Your task to perform on an android device: add a label to a message in the gmail app Image 0: 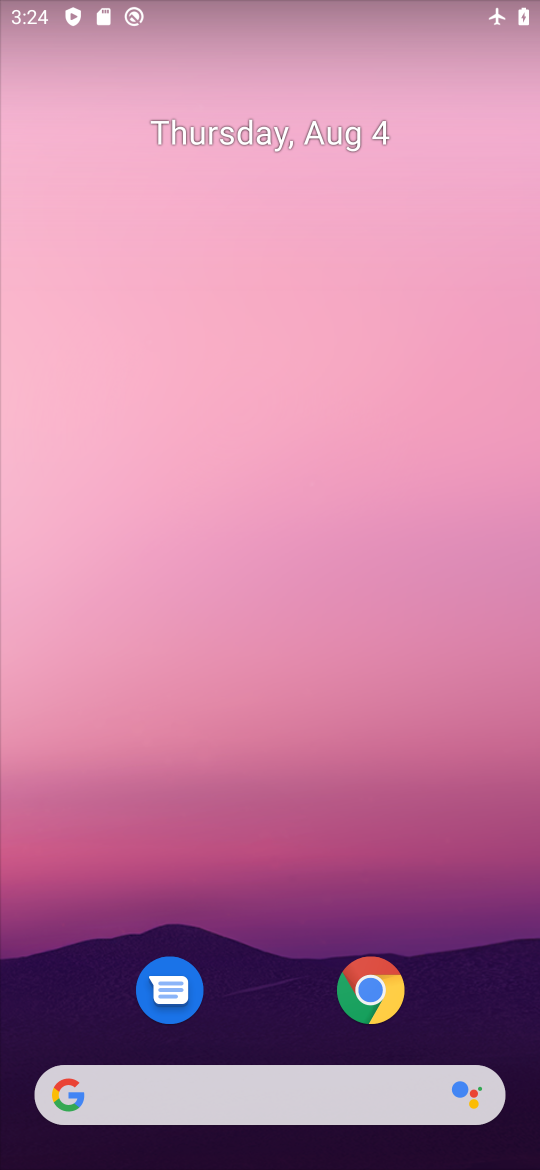
Step 0: drag from (314, 1044) to (313, 200)
Your task to perform on an android device: add a label to a message in the gmail app Image 1: 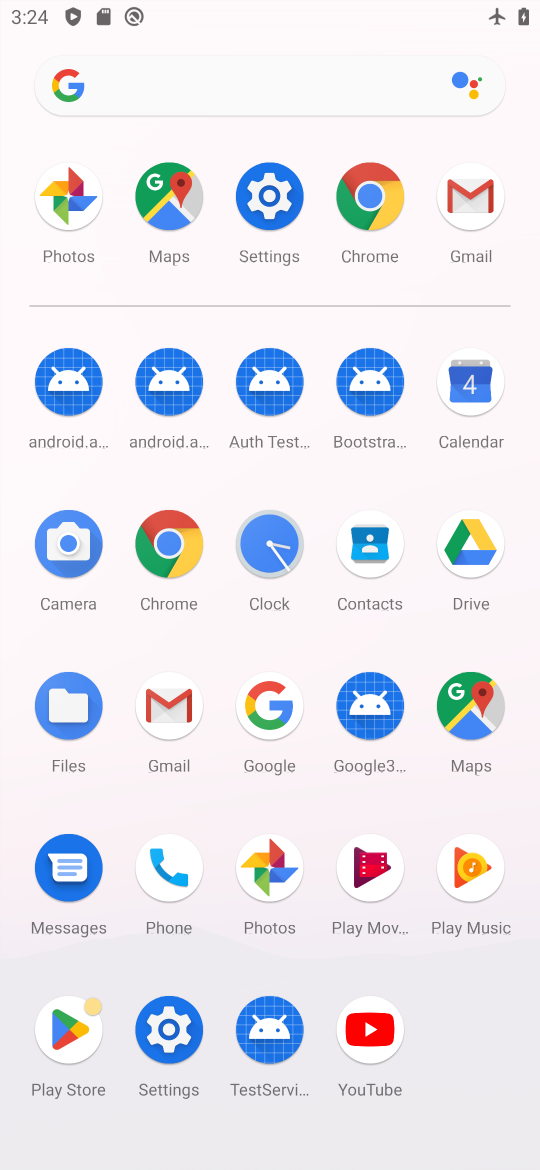
Step 1: click (169, 710)
Your task to perform on an android device: add a label to a message in the gmail app Image 2: 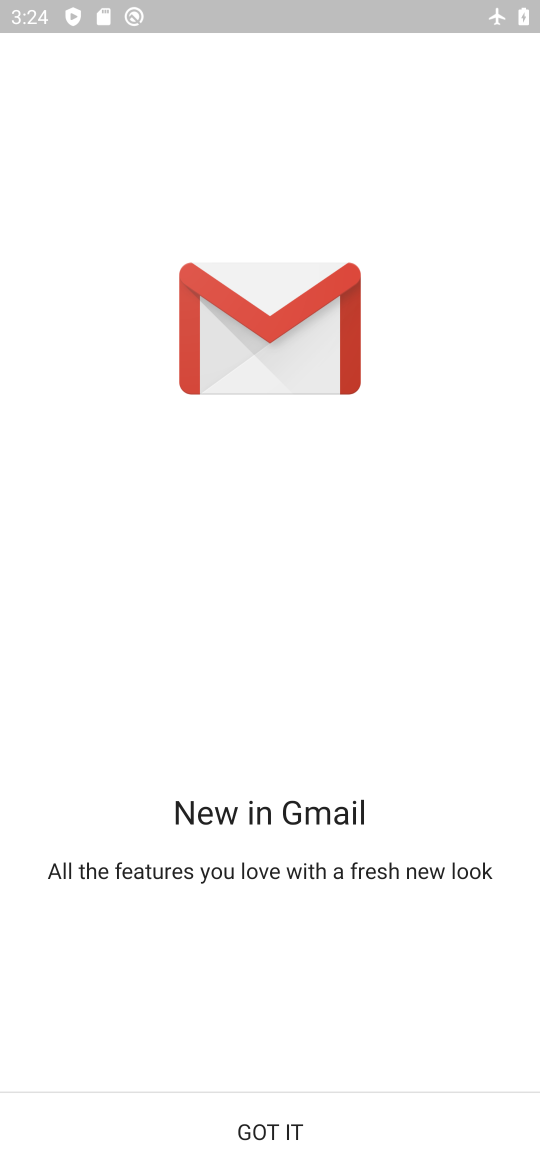
Step 2: task complete